Your task to perform on an android device: add a contact Image 0: 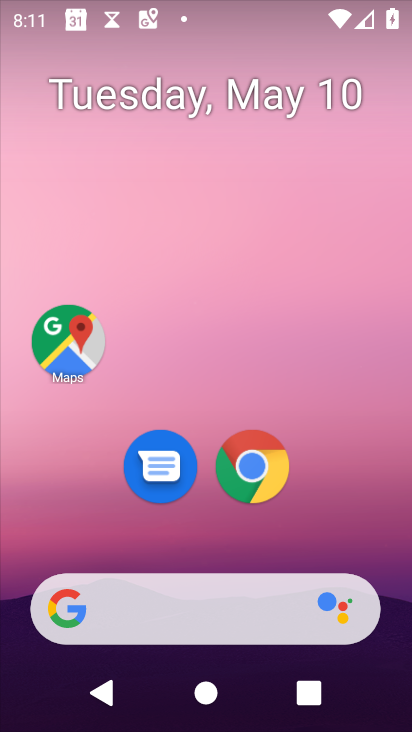
Step 0: drag from (281, 526) to (176, 27)
Your task to perform on an android device: add a contact Image 1: 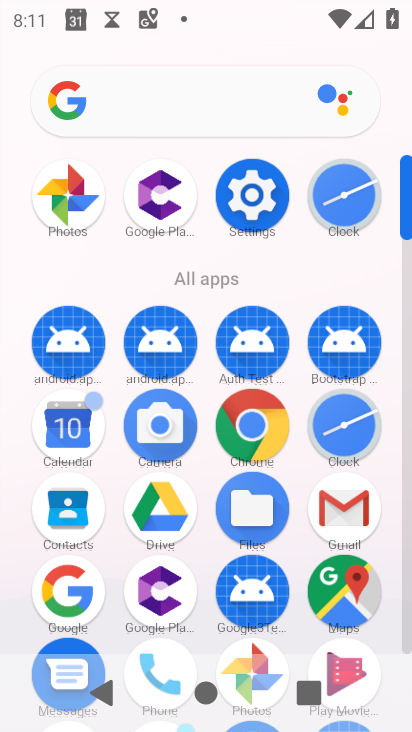
Step 1: click (69, 513)
Your task to perform on an android device: add a contact Image 2: 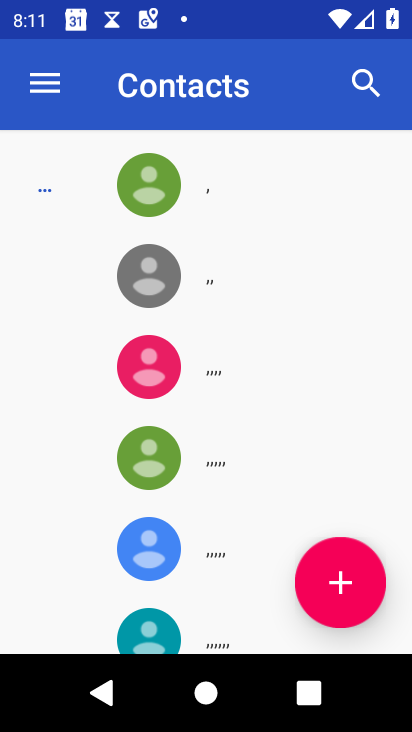
Step 2: click (358, 577)
Your task to perform on an android device: add a contact Image 3: 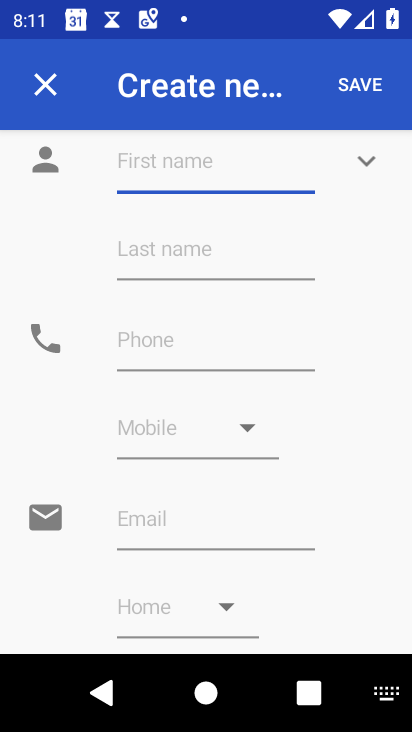
Step 3: type "bjikmlpouhn"
Your task to perform on an android device: add a contact Image 4: 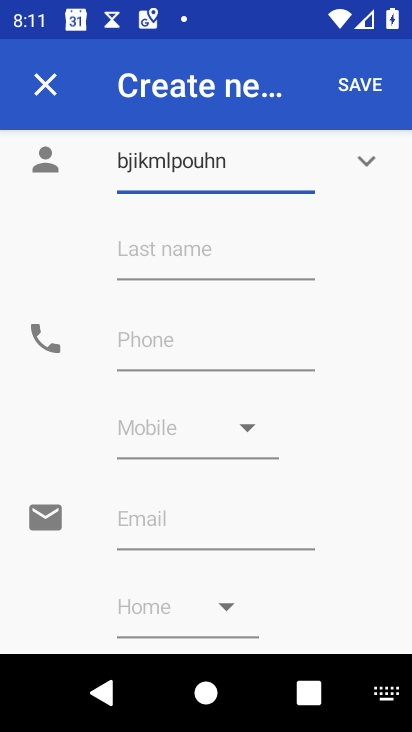
Step 4: click (136, 341)
Your task to perform on an android device: add a contact Image 5: 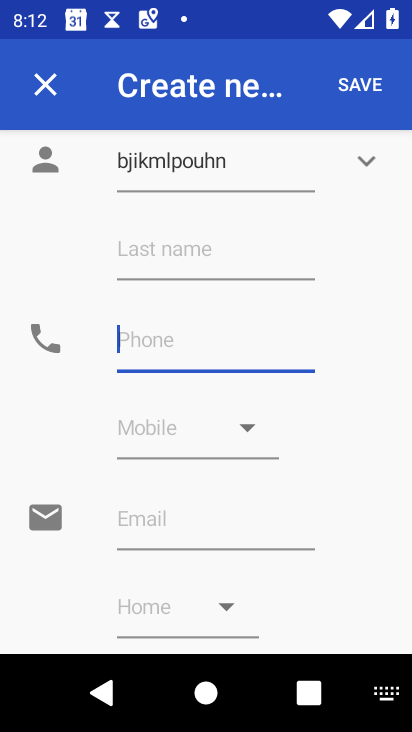
Step 5: type "6789098767"
Your task to perform on an android device: add a contact Image 6: 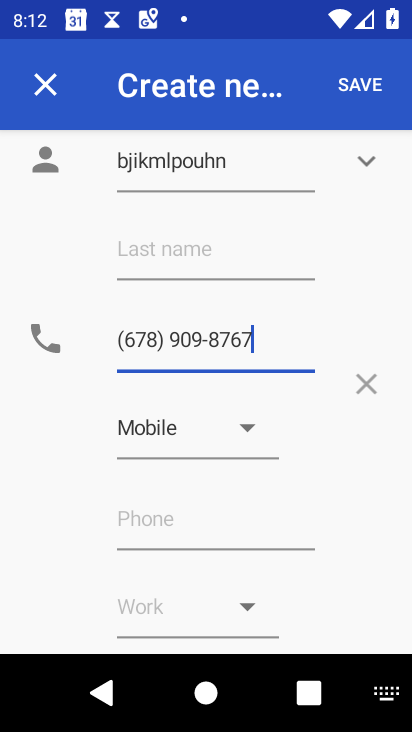
Step 6: click (364, 84)
Your task to perform on an android device: add a contact Image 7: 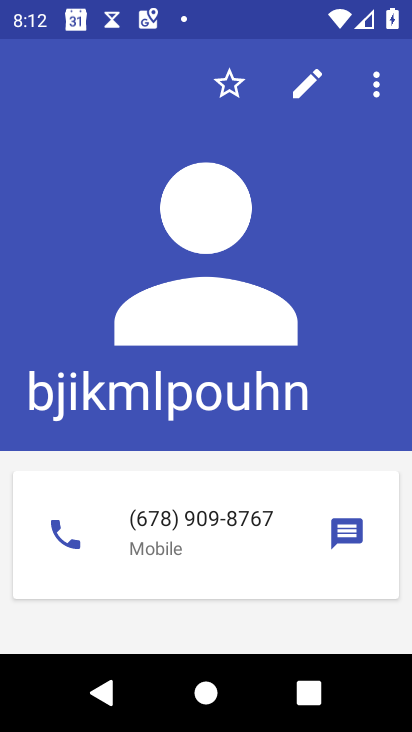
Step 7: task complete